Your task to perform on an android device: change the clock display to show seconds Image 0: 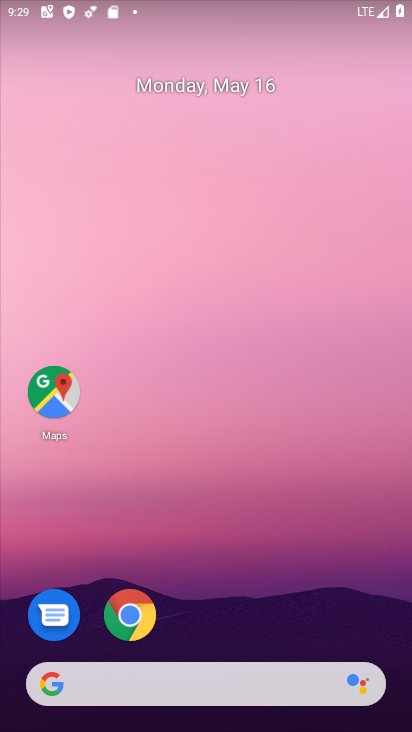
Step 0: drag from (216, 499) to (255, 145)
Your task to perform on an android device: change the clock display to show seconds Image 1: 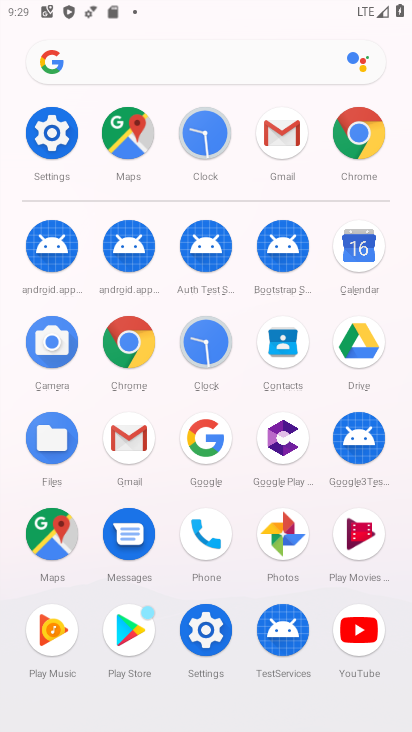
Step 1: click (197, 340)
Your task to perform on an android device: change the clock display to show seconds Image 2: 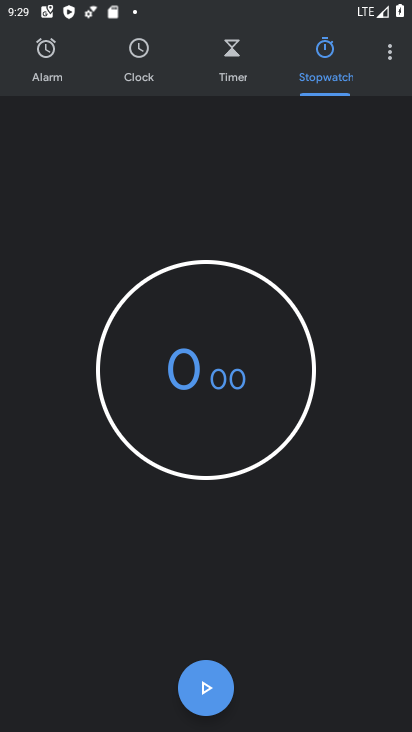
Step 2: click (384, 61)
Your task to perform on an android device: change the clock display to show seconds Image 3: 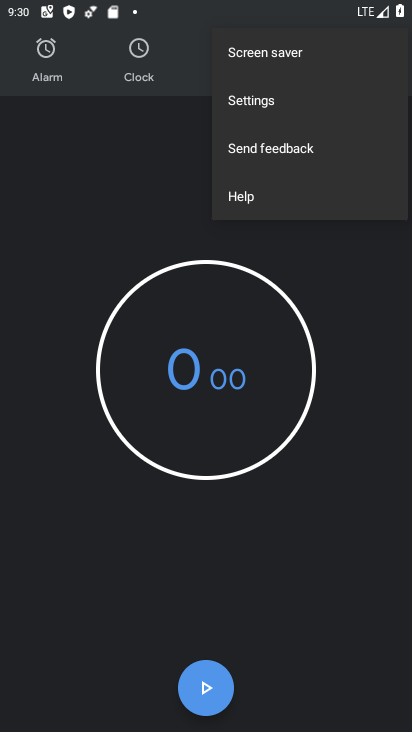
Step 3: click (243, 95)
Your task to perform on an android device: change the clock display to show seconds Image 4: 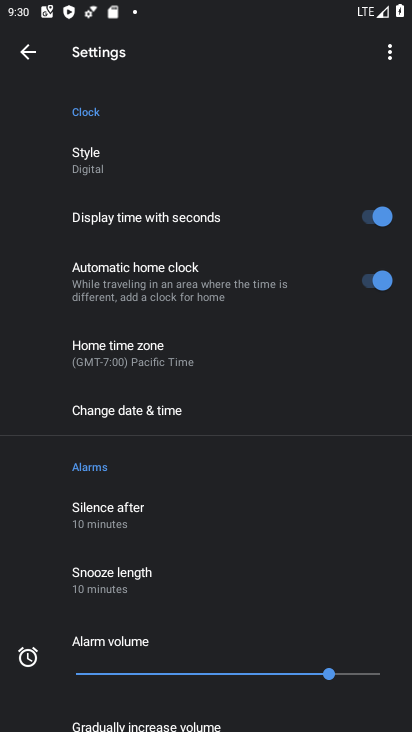
Step 4: task complete